Your task to perform on an android device: Open Chrome and go to settings Image 0: 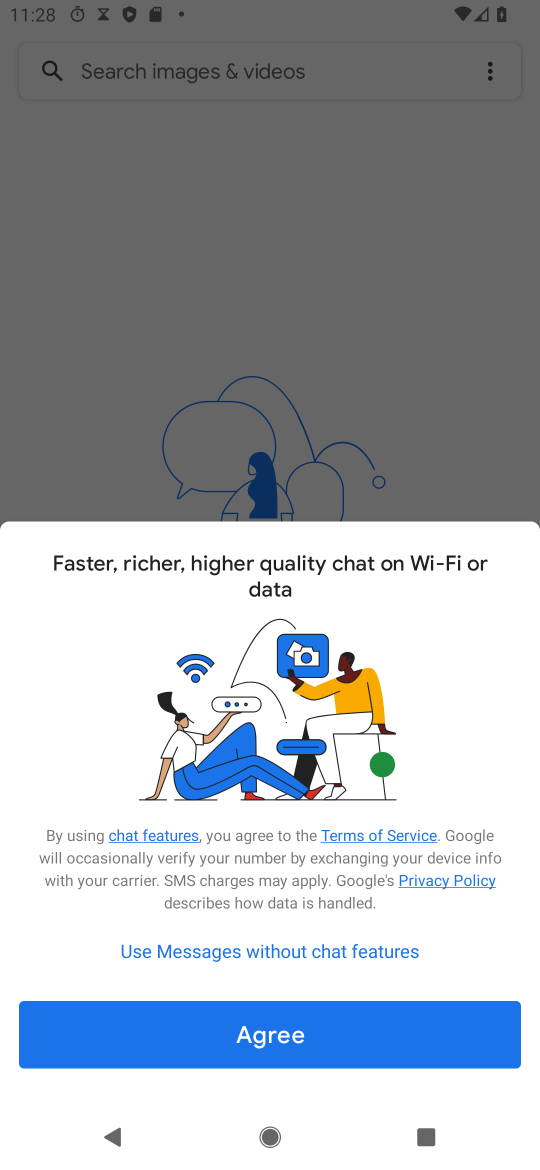
Step 0: press home button
Your task to perform on an android device: Open Chrome and go to settings Image 1: 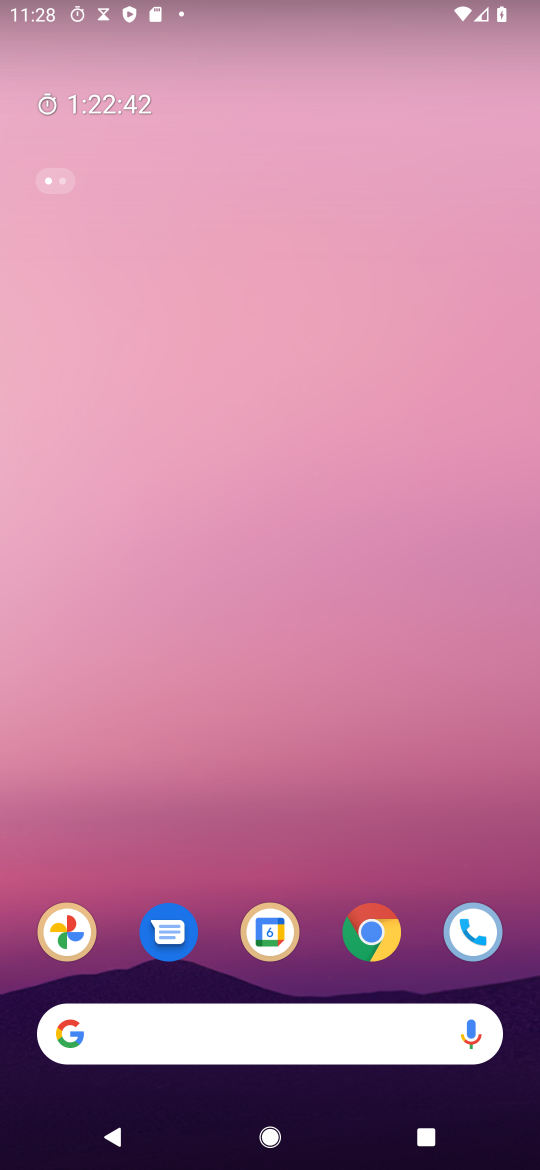
Step 1: drag from (310, 863) to (383, 37)
Your task to perform on an android device: Open Chrome and go to settings Image 2: 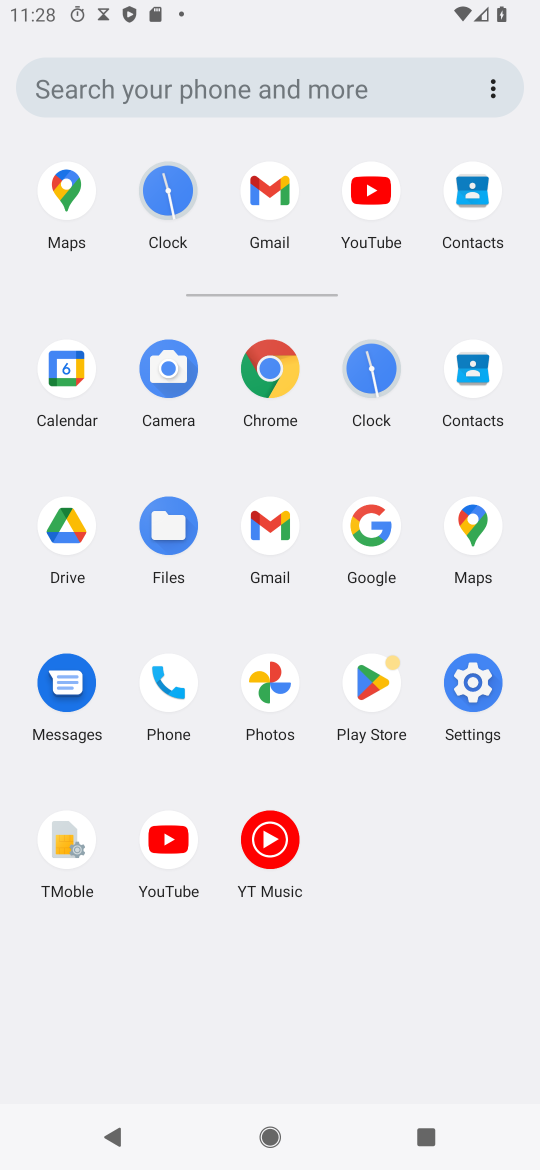
Step 2: click (270, 376)
Your task to perform on an android device: Open Chrome and go to settings Image 3: 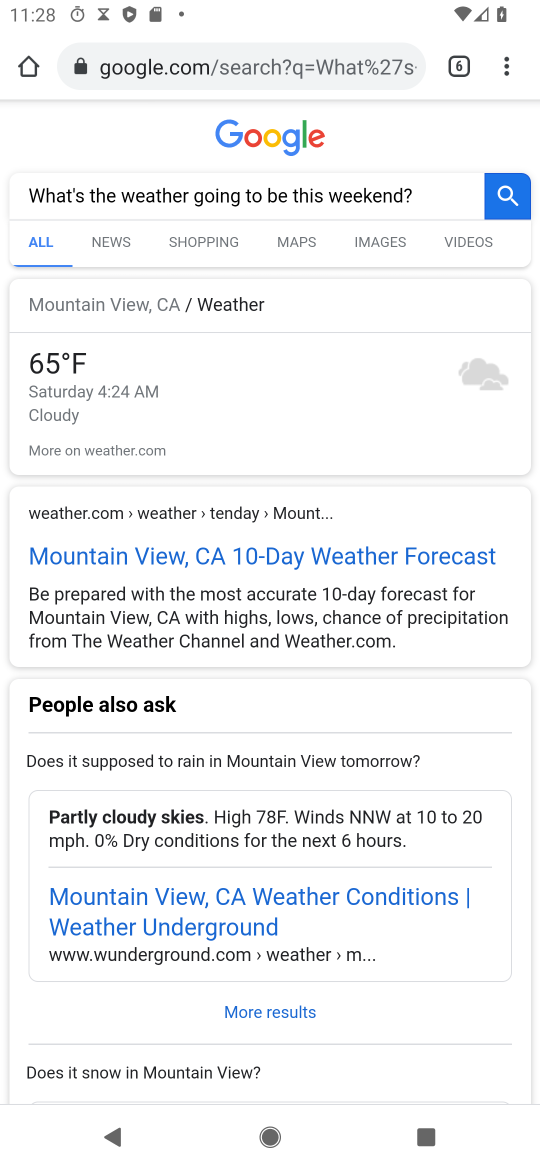
Step 3: click (518, 61)
Your task to perform on an android device: Open Chrome and go to settings Image 4: 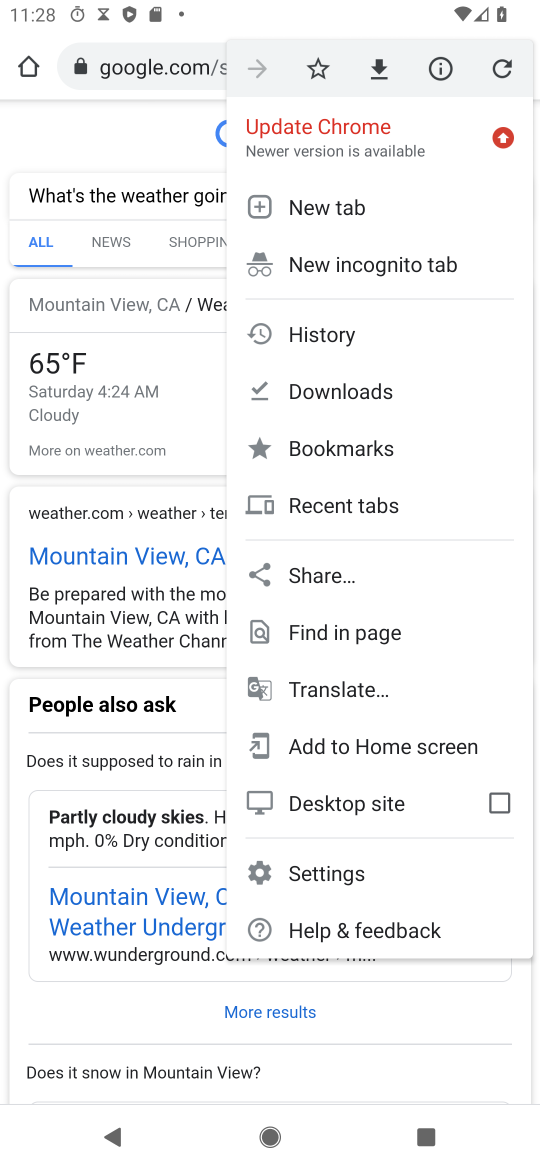
Step 4: click (372, 887)
Your task to perform on an android device: Open Chrome and go to settings Image 5: 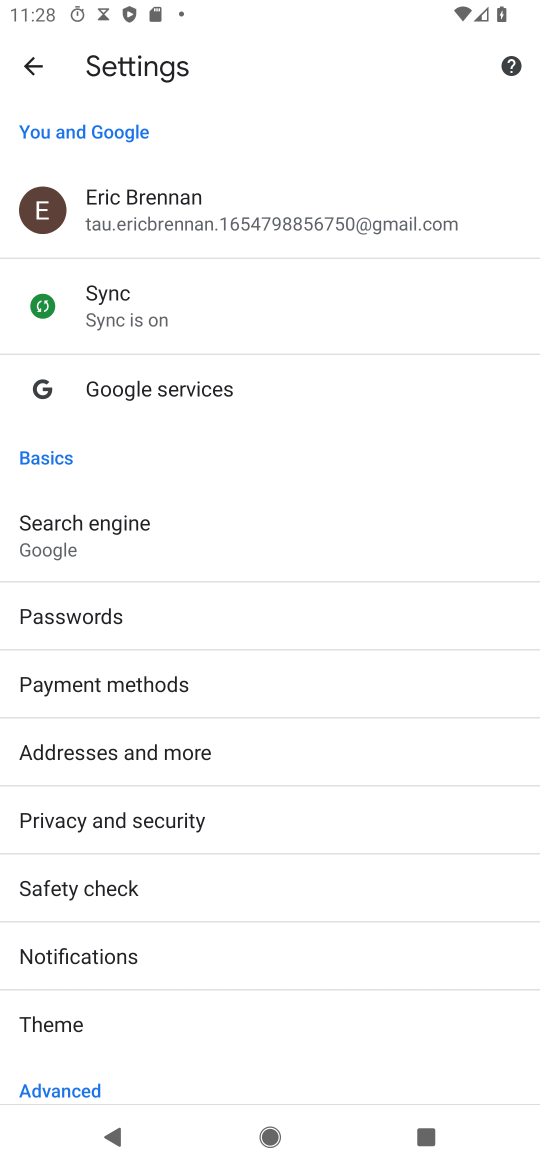
Step 5: task complete